Your task to perform on an android device: Clear the shopping cart on ebay.com. Search for "razer nari" on ebay.com, select the first entry, add it to the cart, then select checkout. Image 0: 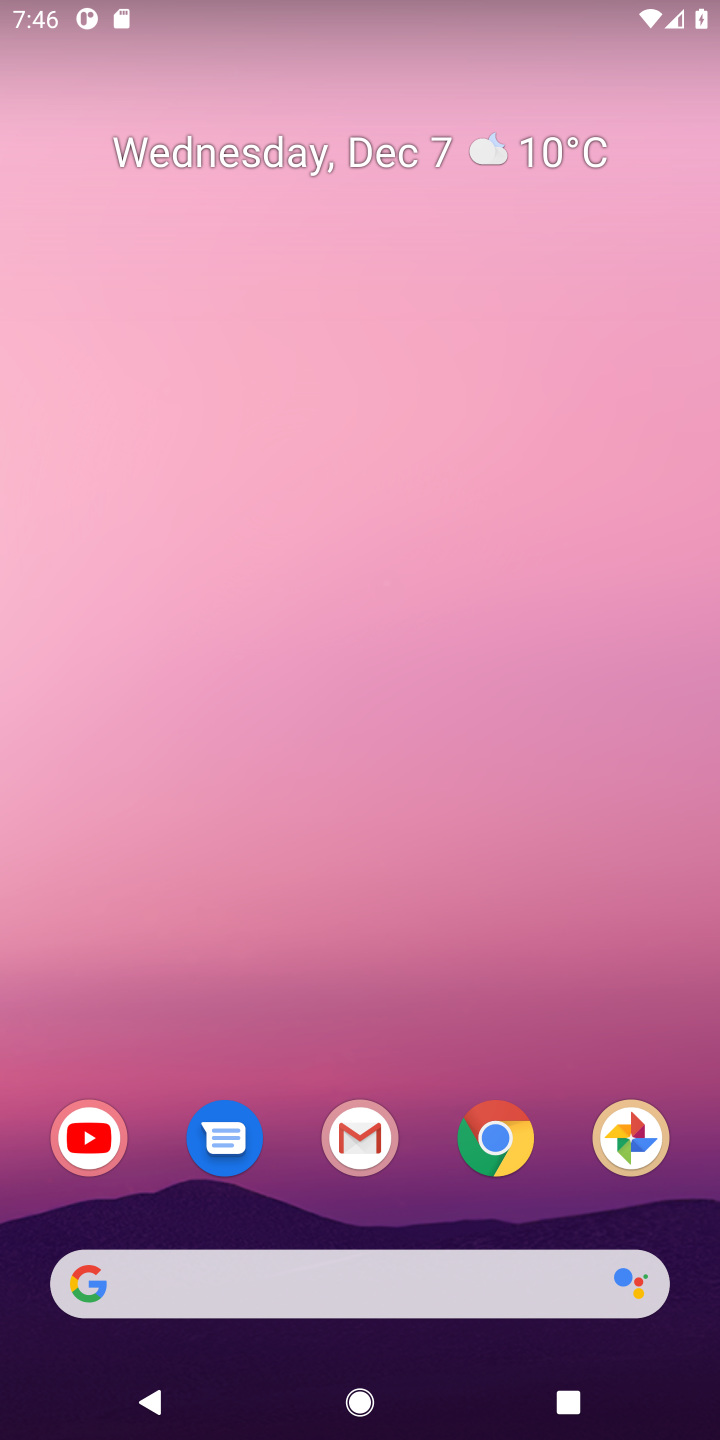
Step 0: press home button
Your task to perform on an android device: Clear the shopping cart on ebay.com. Search for "razer nari" on ebay.com, select the first entry, add it to the cart, then select checkout. Image 1: 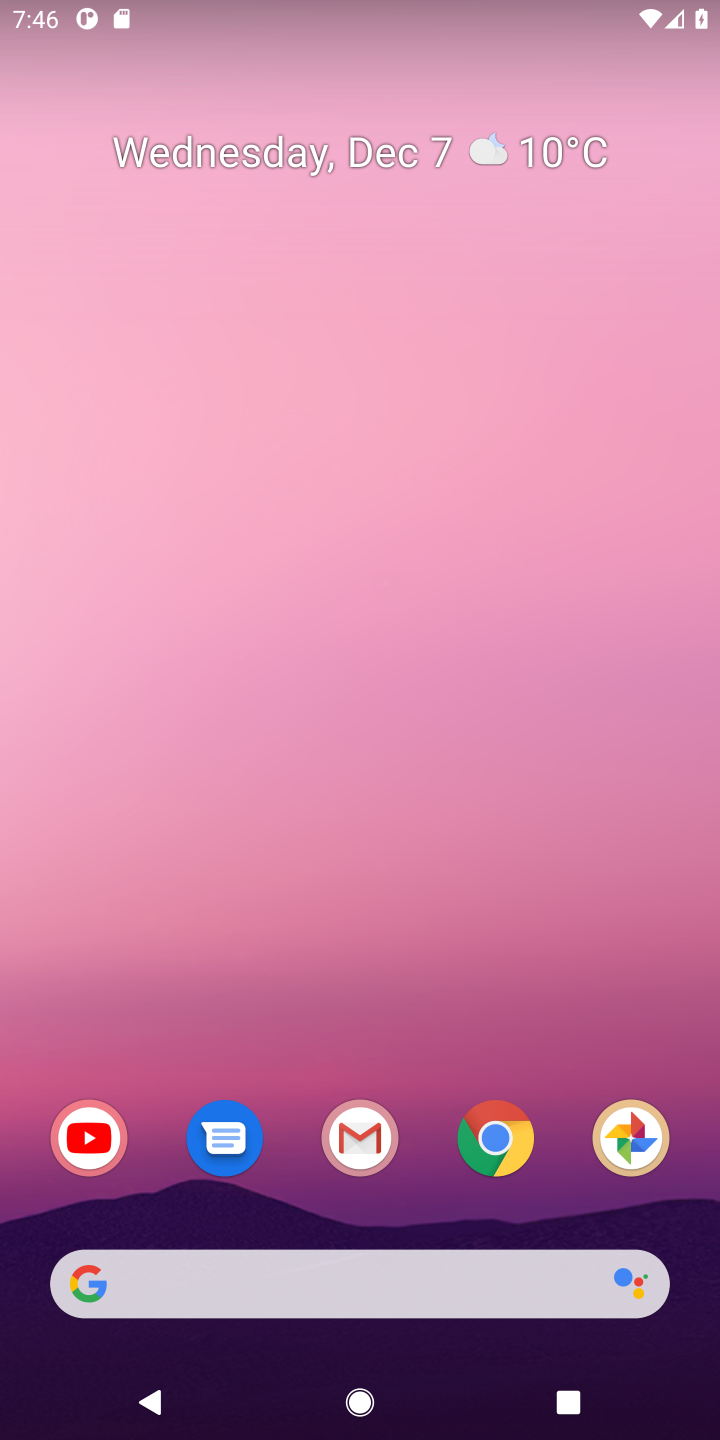
Step 1: click (165, 1275)
Your task to perform on an android device: Clear the shopping cart on ebay.com. Search for "razer nari" on ebay.com, select the first entry, add it to the cart, then select checkout. Image 2: 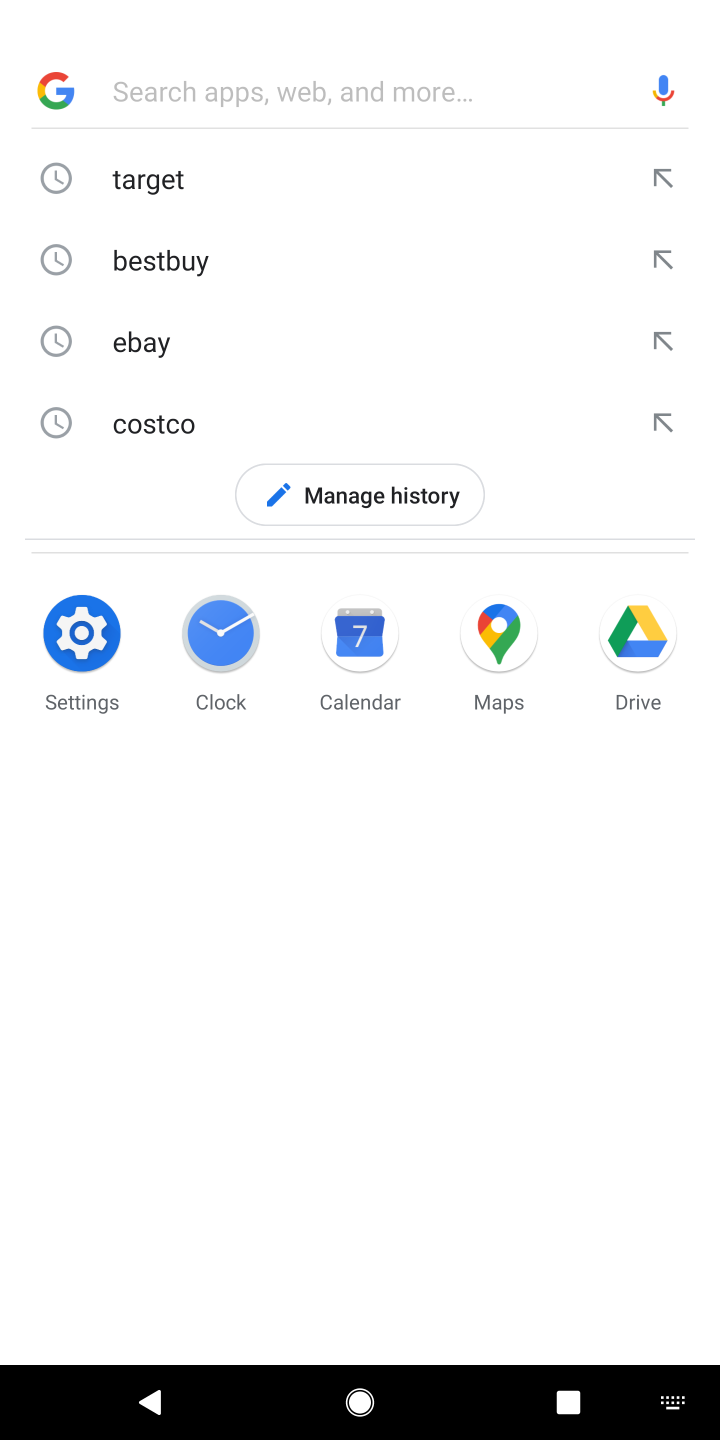
Step 2: type "ebay.com"
Your task to perform on an android device: Clear the shopping cart on ebay.com. Search for "razer nari" on ebay.com, select the first entry, add it to the cart, then select checkout. Image 3: 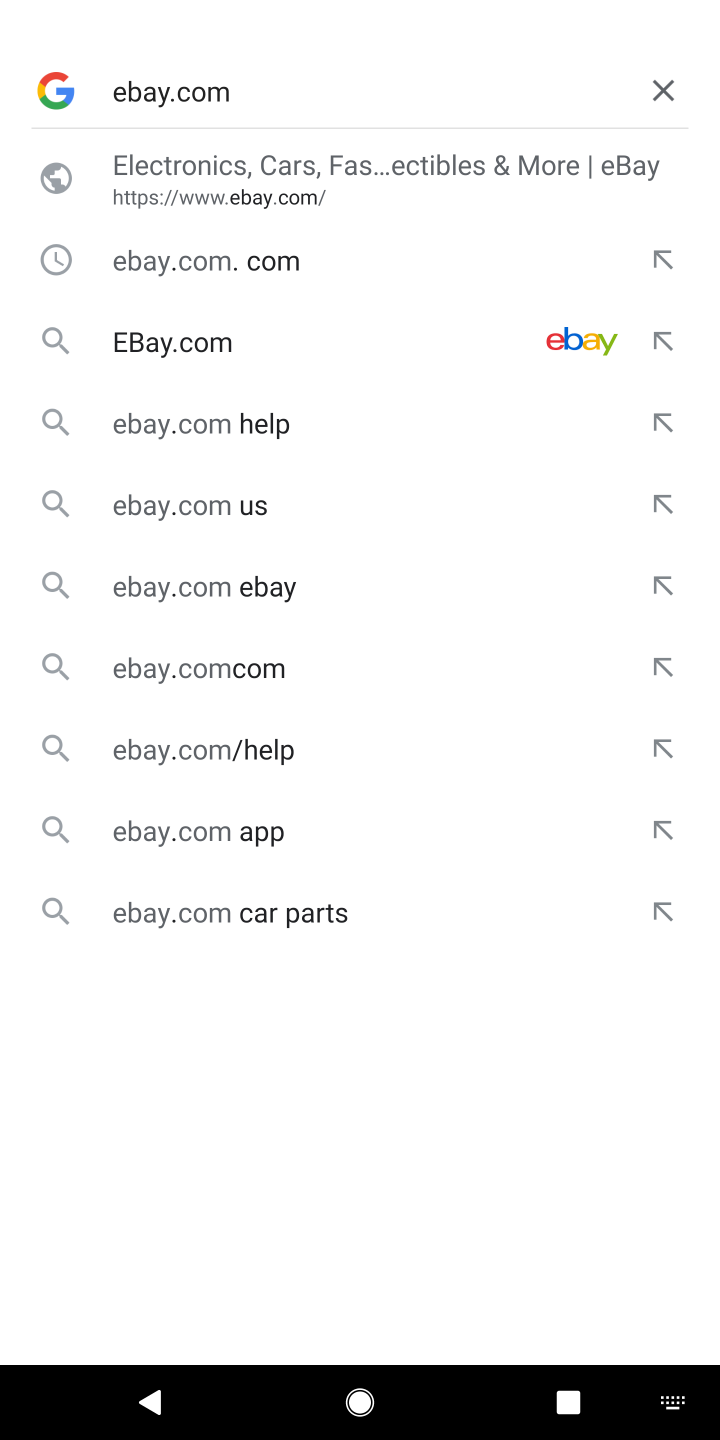
Step 3: press enter
Your task to perform on an android device: Clear the shopping cart on ebay.com. Search for "razer nari" on ebay.com, select the first entry, add it to the cart, then select checkout. Image 4: 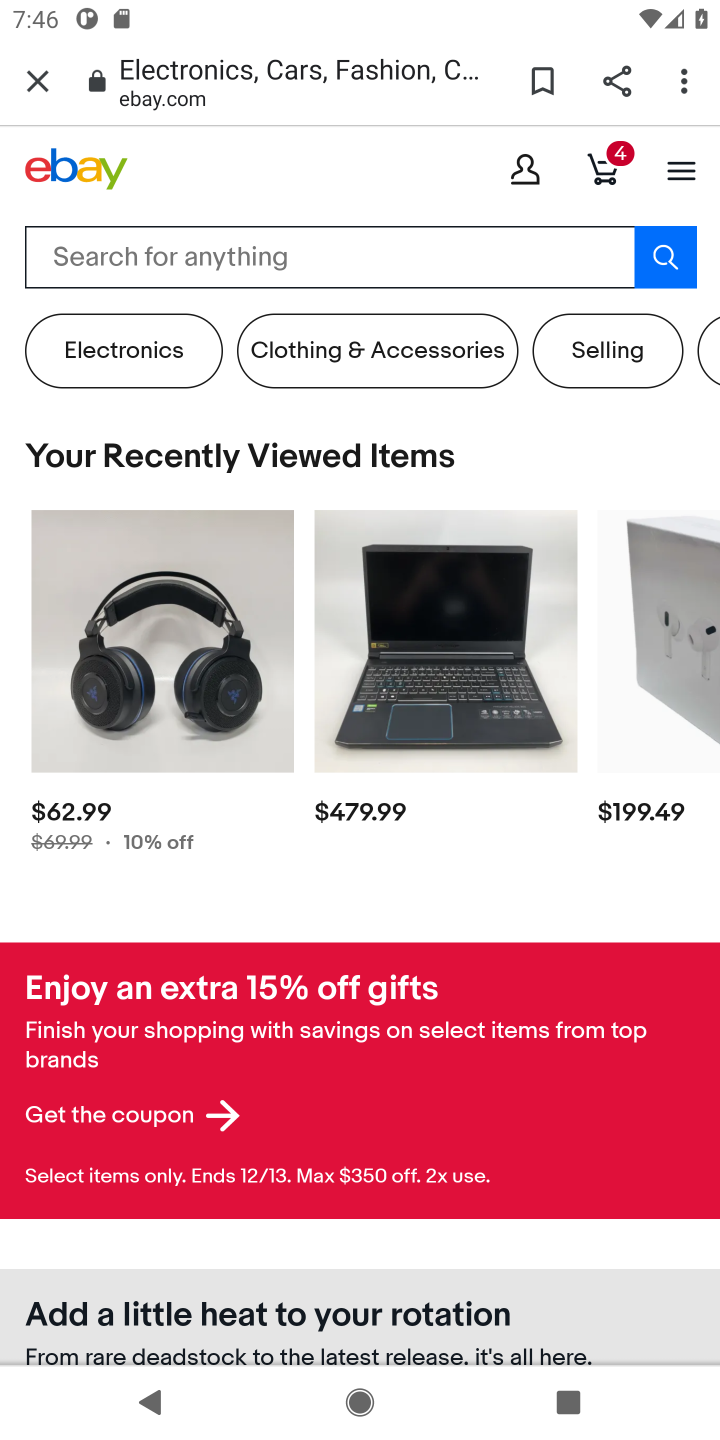
Step 4: click (601, 158)
Your task to perform on an android device: Clear the shopping cart on ebay.com. Search for "razer nari" on ebay.com, select the first entry, add it to the cart, then select checkout. Image 5: 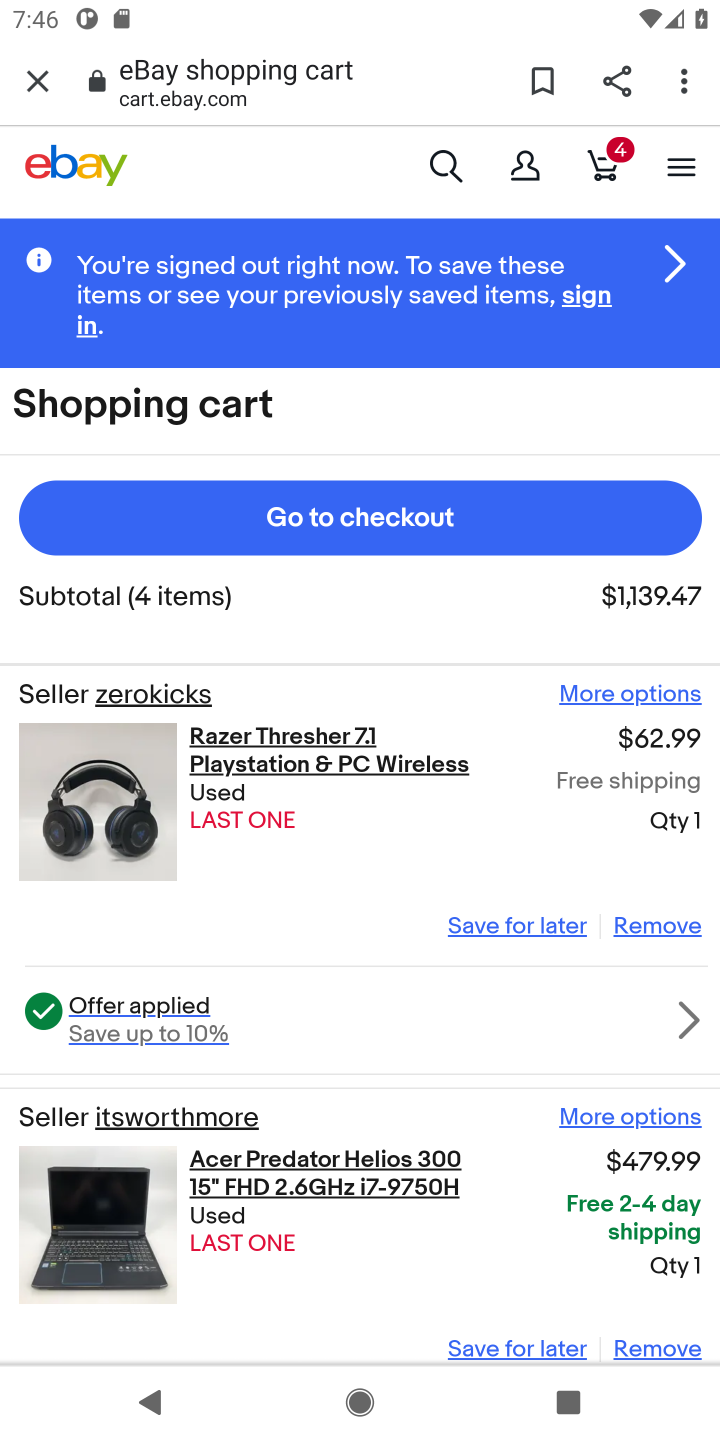
Step 5: click (666, 918)
Your task to perform on an android device: Clear the shopping cart on ebay.com. Search for "razer nari" on ebay.com, select the first entry, add it to the cart, then select checkout. Image 6: 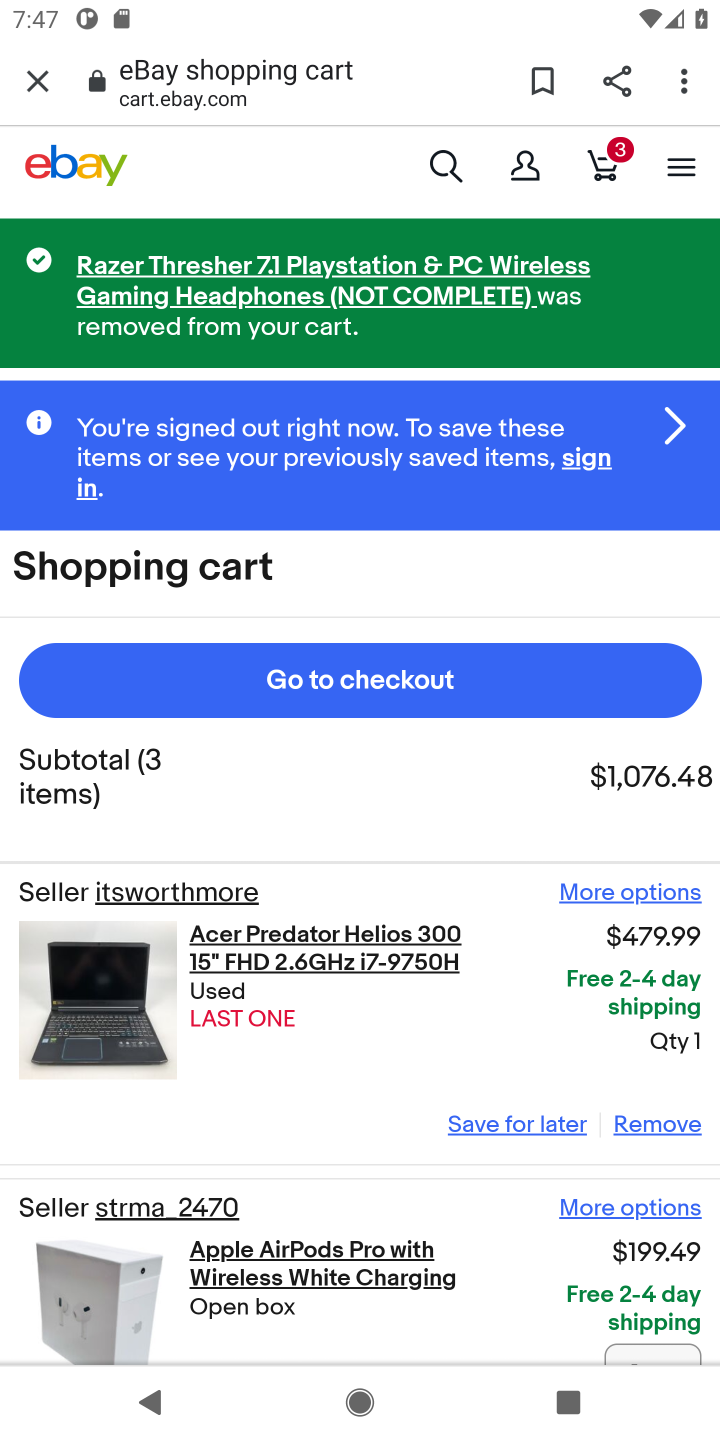
Step 6: click (647, 1127)
Your task to perform on an android device: Clear the shopping cart on ebay.com. Search for "razer nari" on ebay.com, select the first entry, add it to the cart, then select checkout. Image 7: 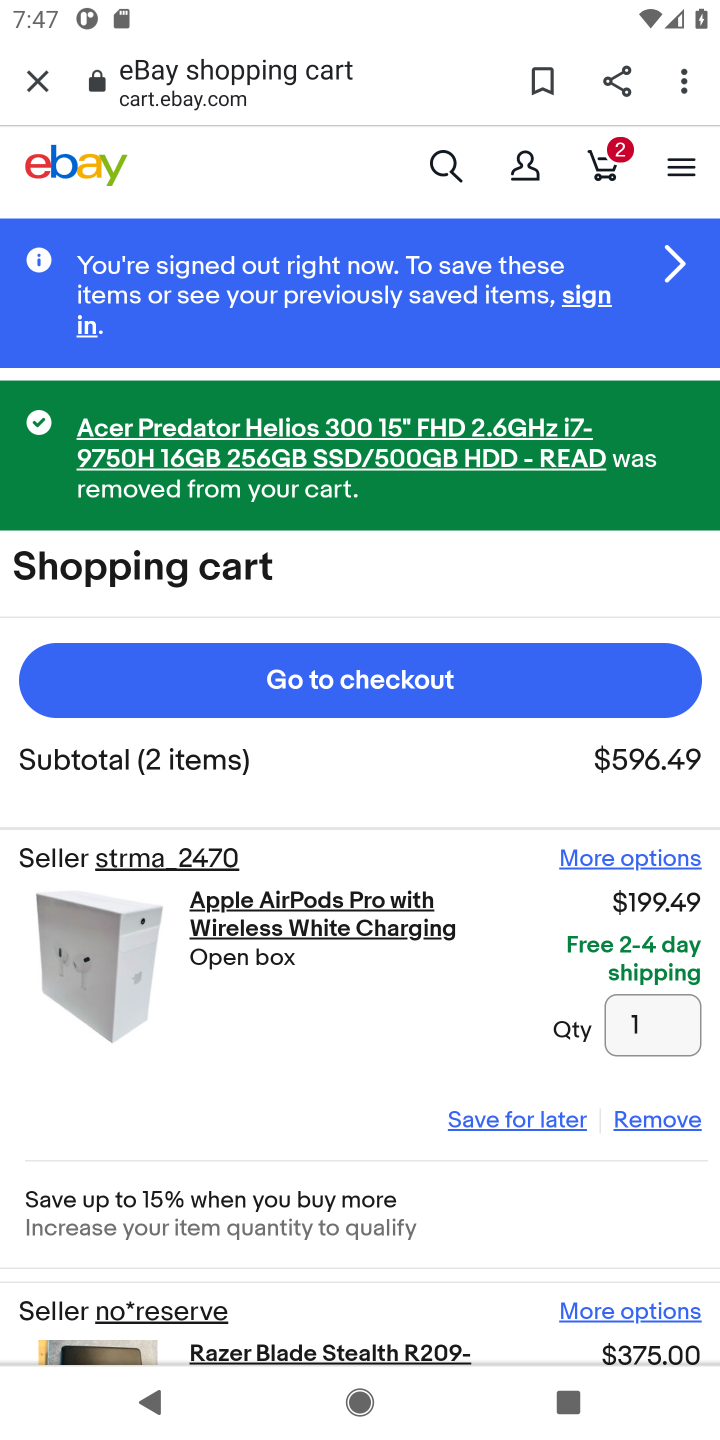
Step 7: click (659, 1120)
Your task to perform on an android device: Clear the shopping cart on ebay.com. Search for "razer nari" on ebay.com, select the first entry, add it to the cart, then select checkout. Image 8: 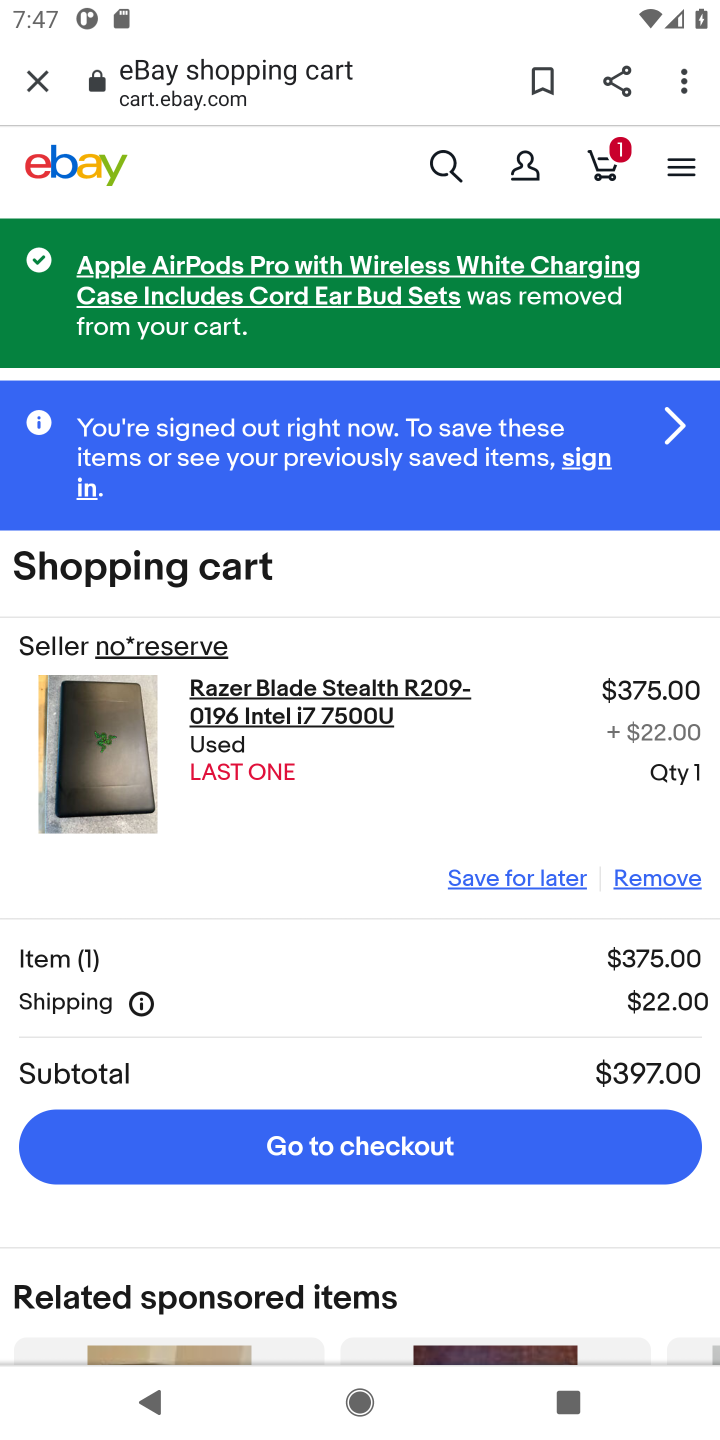
Step 8: click (643, 874)
Your task to perform on an android device: Clear the shopping cart on ebay.com. Search for "razer nari" on ebay.com, select the first entry, add it to the cart, then select checkout. Image 9: 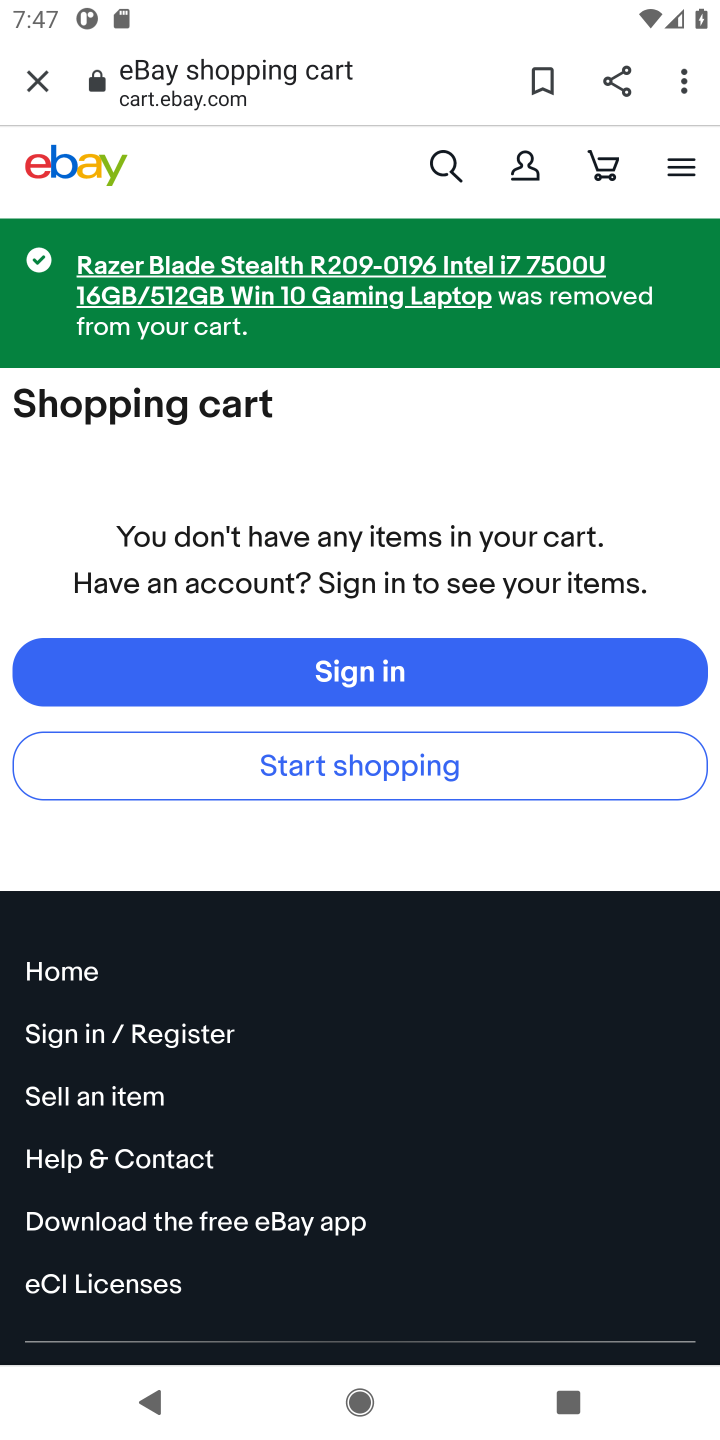
Step 9: click (440, 160)
Your task to perform on an android device: Clear the shopping cart on ebay.com. Search for "razer nari" on ebay.com, select the first entry, add it to the cart, then select checkout. Image 10: 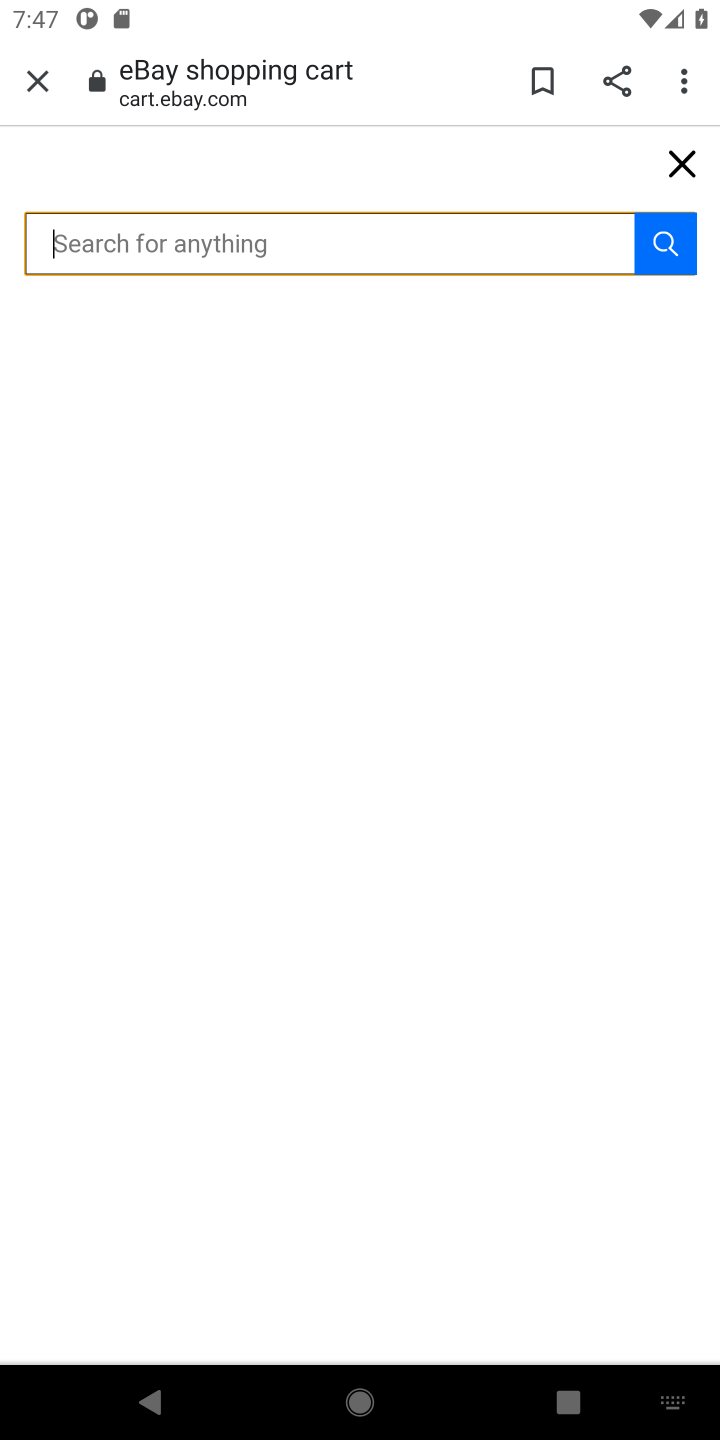
Step 10: type "razer nari"
Your task to perform on an android device: Clear the shopping cart on ebay.com. Search for "razer nari" on ebay.com, select the first entry, add it to the cart, then select checkout. Image 11: 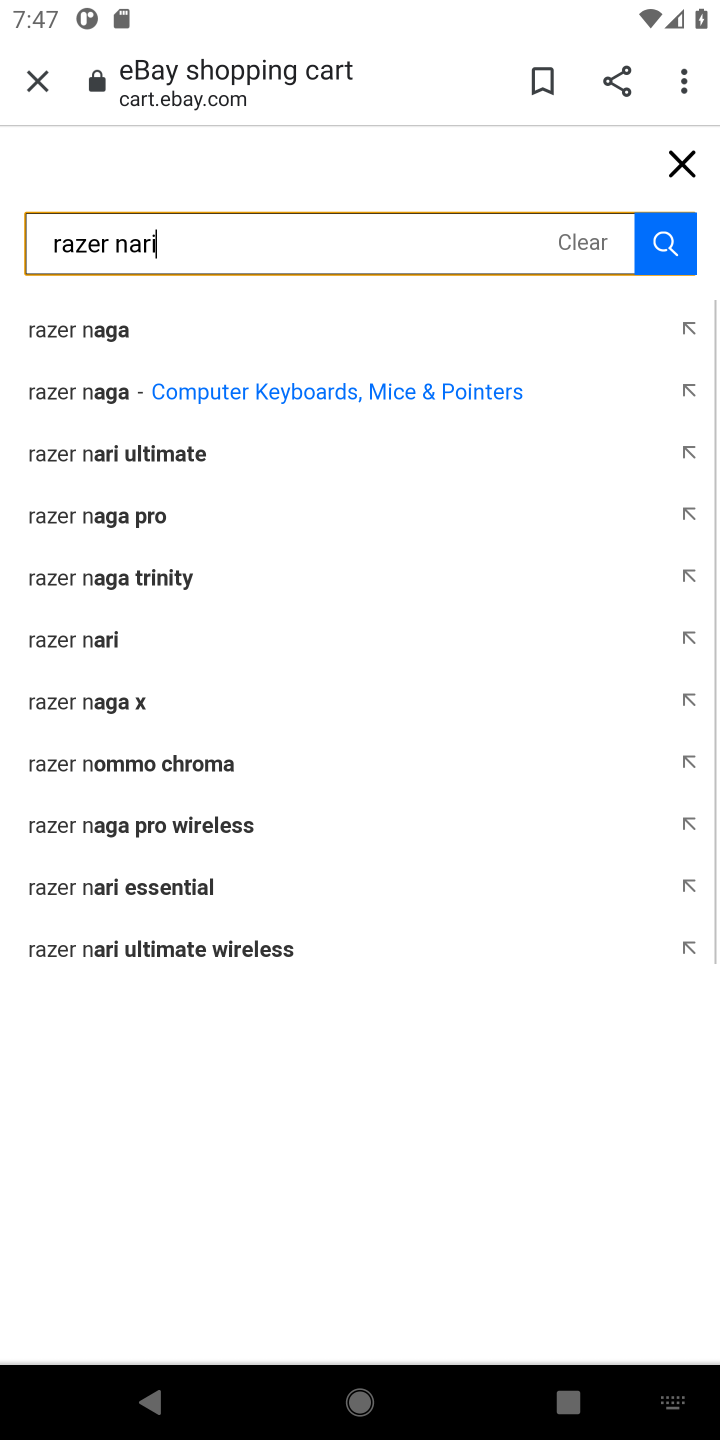
Step 11: press enter
Your task to perform on an android device: Clear the shopping cart on ebay.com. Search for "razer nari" on ebay.com, select the first entry, add it to the cart, then select checkout. Image 12: 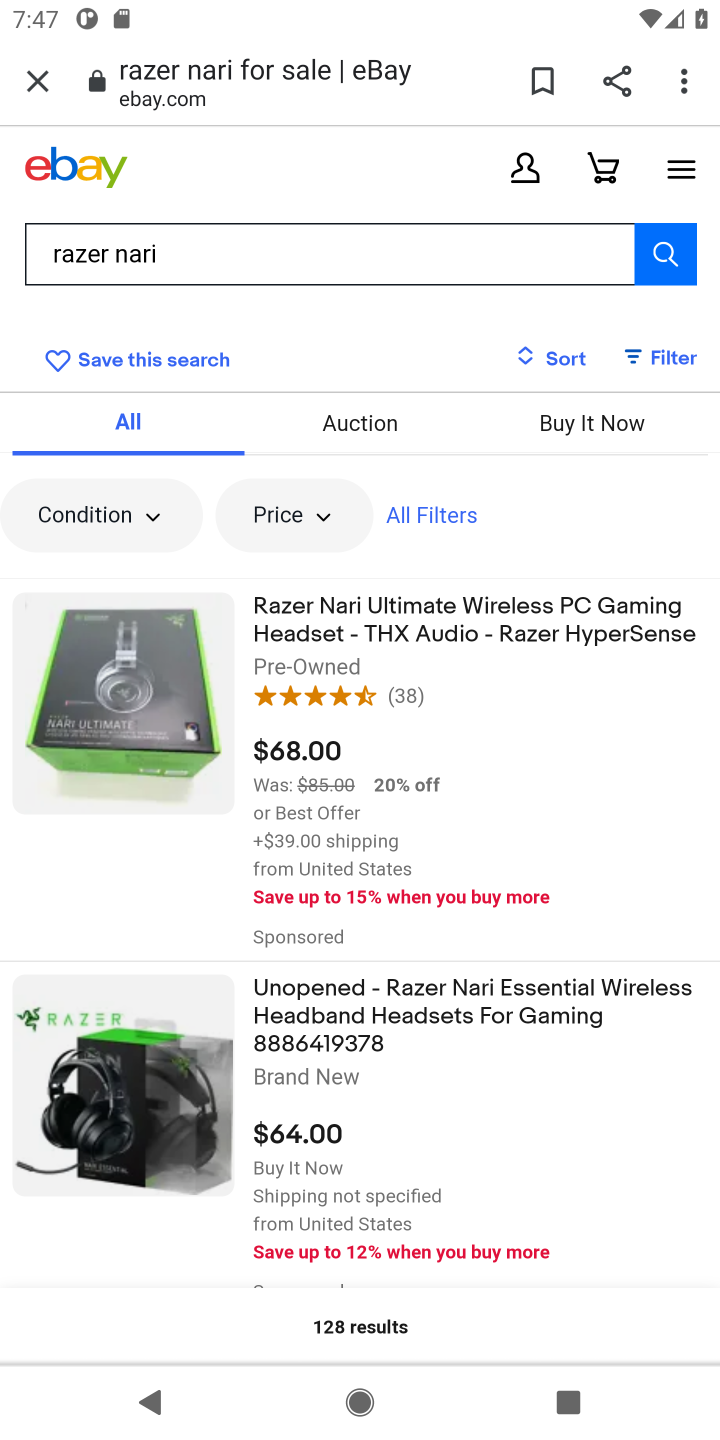
Step 12: click (423, 639)
Your task to perform on an android device: Clear the shopping cart on ebay.com. Search for "razer nari" on ebay.com, select the first entry, add it to the cart, then select checkout. Image 13: 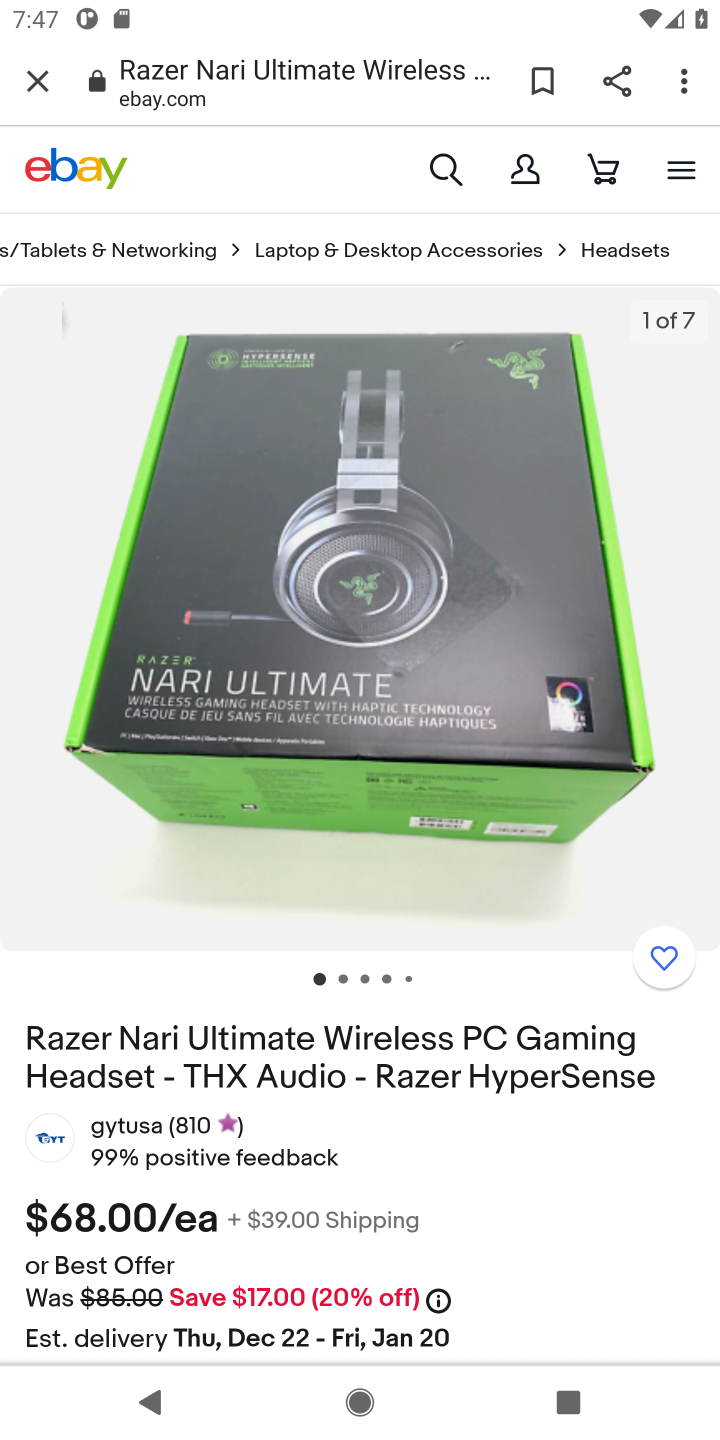
Step 13: drag from (527, 1211) to (594, 661)
Your task to perform on an android device: Clear the shopping cart on ebay.com. Search for "razer nari" on ebay.com, select the first entry, add it to the cart, then select checkout. Image 14: 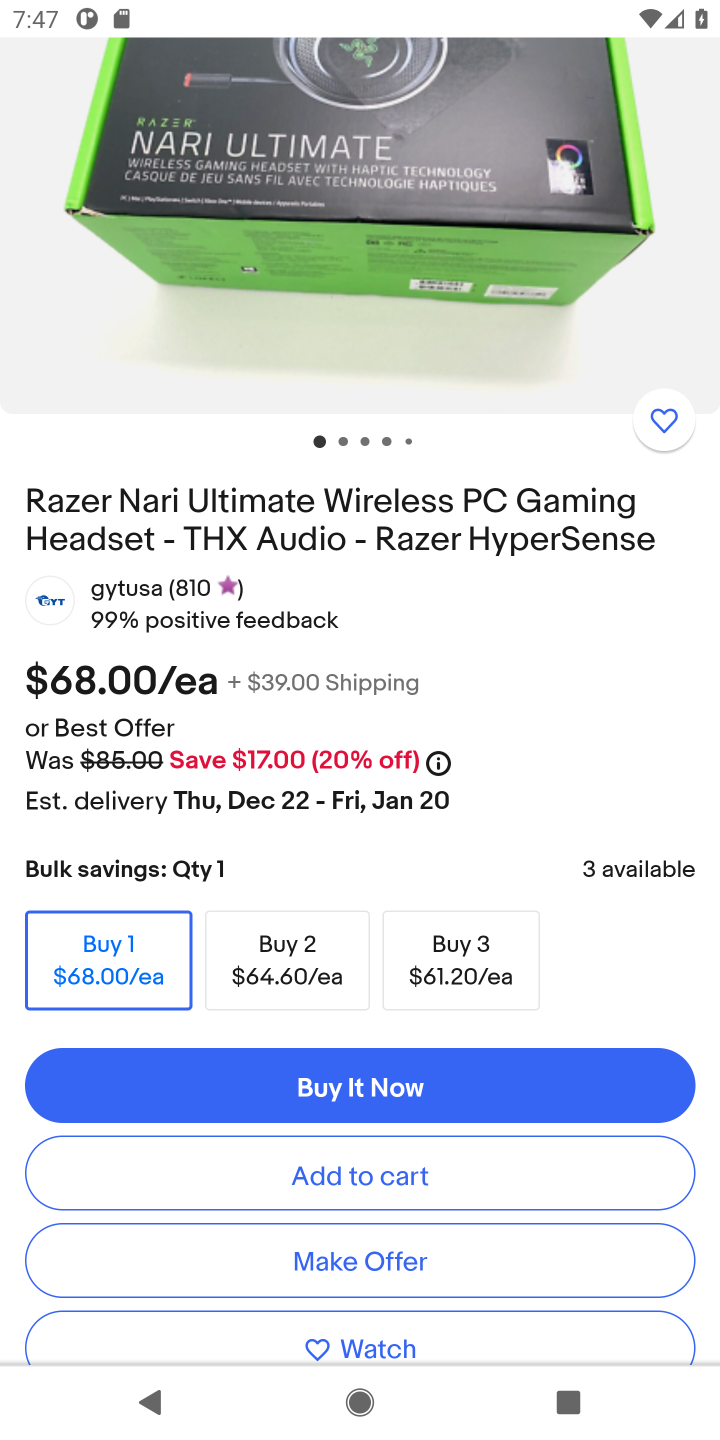
Step 14: click (343, 1179)
Your task to perform on an android device: Clear the shopping cart on ebay.com. Search for "razer nari" on ebay.com, select the first entry, add it to the cart, then select checkout. Image 15: 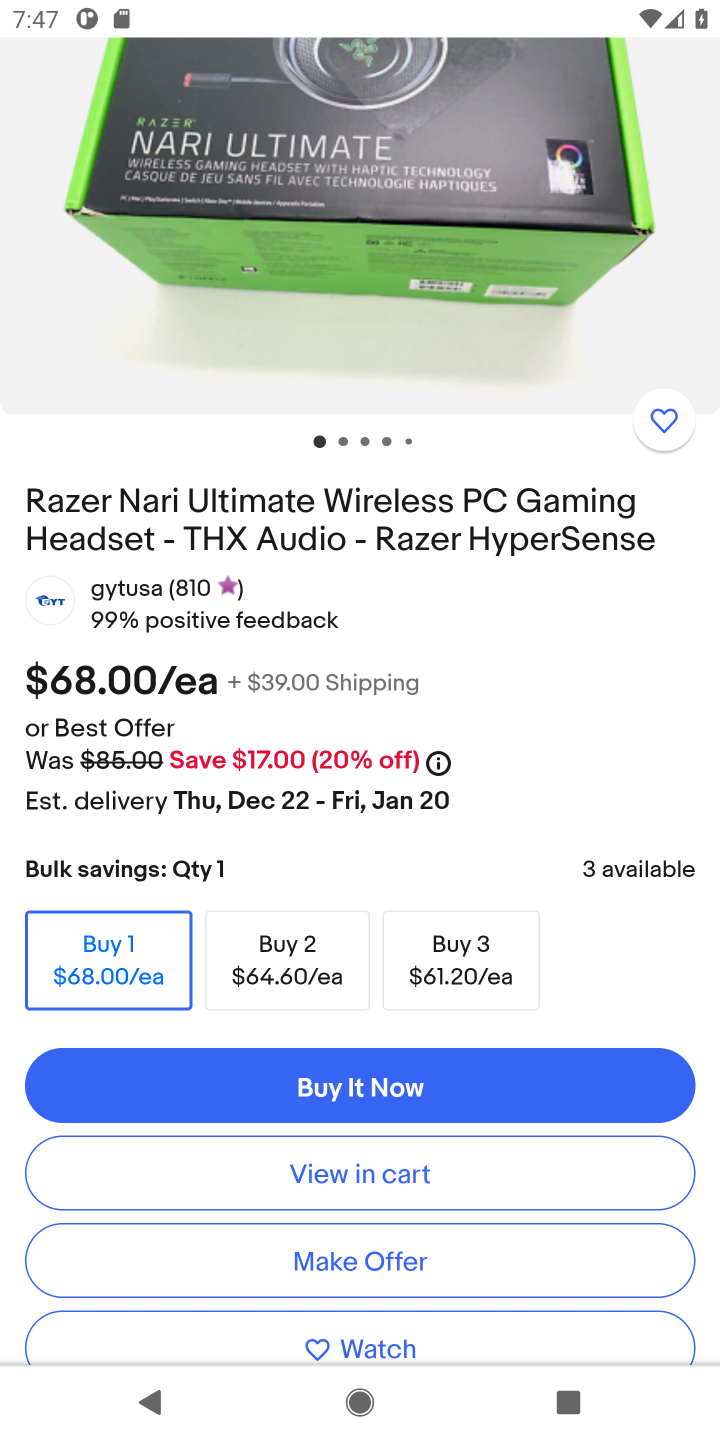
Step 15: task complete